Your task to perform on an android device: change alarm snooze length Image 0: 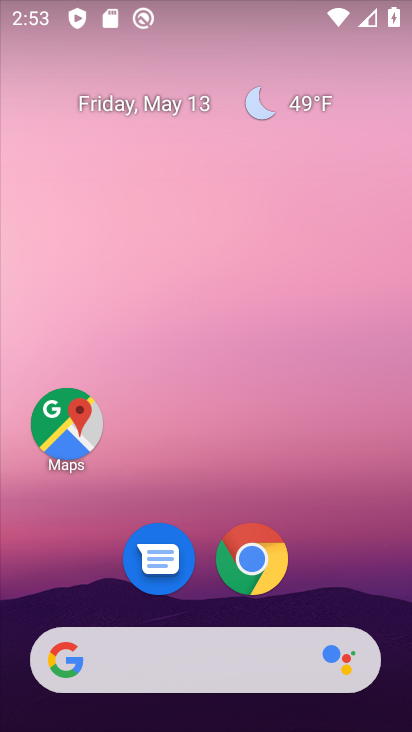
Step 0: drag from (365, 612) to (250, 31)
Your task to perform on an android device: change alarm snooze length Image 1: 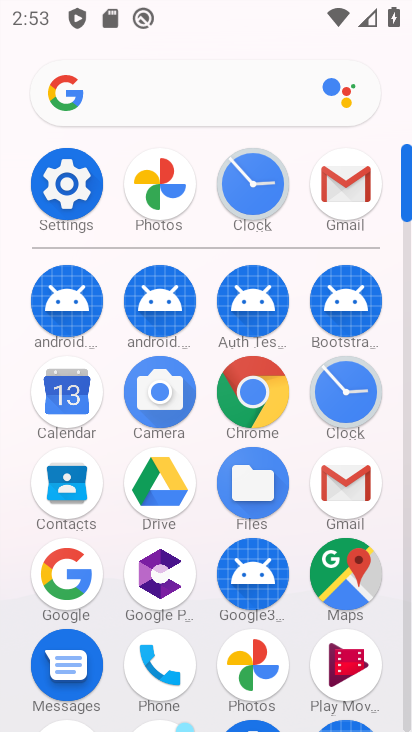
Step 1: click (346, 390)
Your task to perform on an android device: change alarm snooze length Image 2: 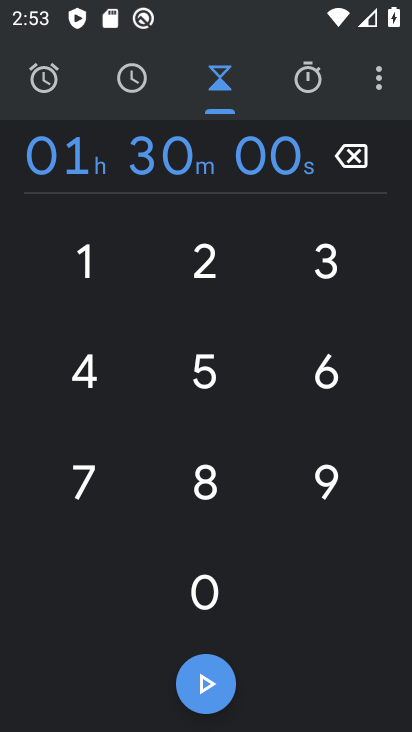
Step 2: click (378, 88)
Your task to perform on an android device: change alarm snooze length Image 3: 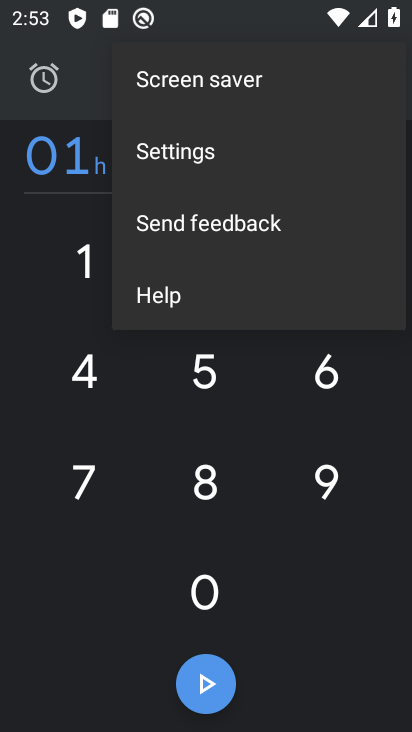
Step 3: click (202, 150)
Your task to perform on an android device: change alarm snooze length Image 4: 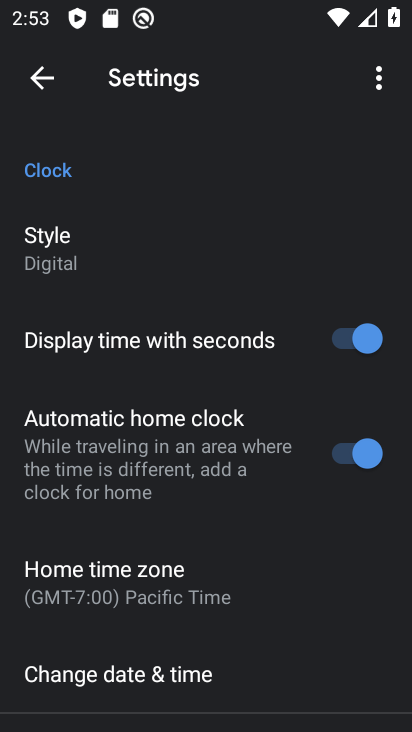
Step 4: drag from (177, 591) to (216, 89)
Your task to perform on an android device: change alarm snooze length Image 5: 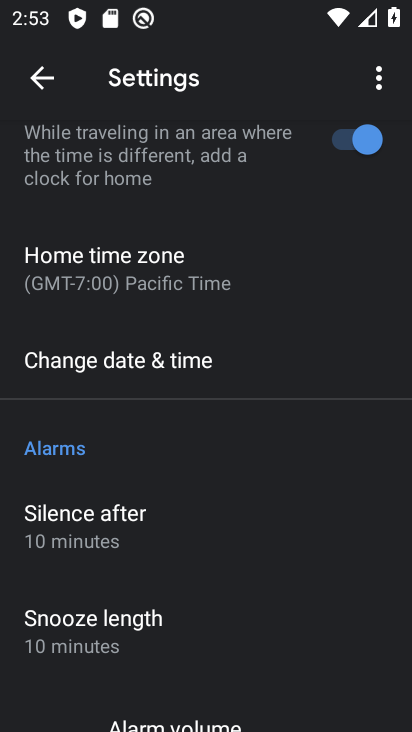
Step 5: click (38, 635)
Your task to perform on an android device: change alarm snooze length Image 6: 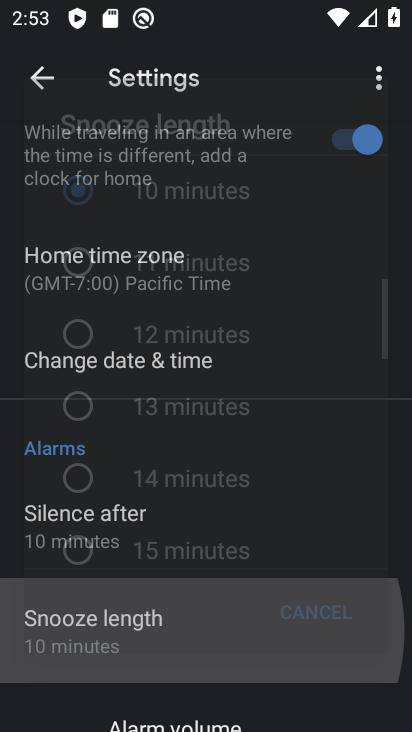
Step 6: click (38, 635)
Your task to perform on an android device: change alarm snooze length Image 7: 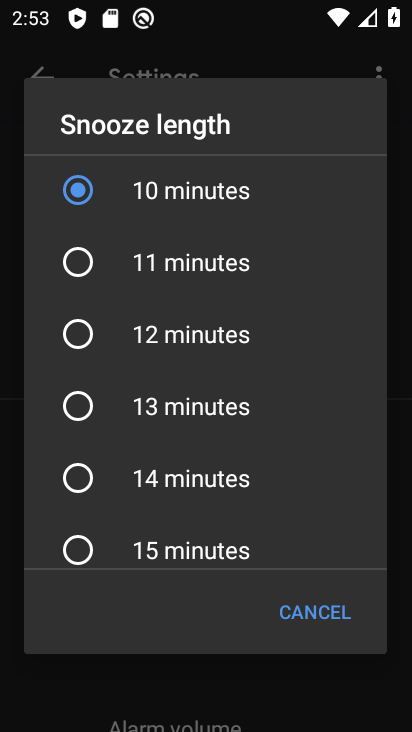
Step 7: click (83, 554)
Your task to perform on an android device: change alarm snooze length Image 8: 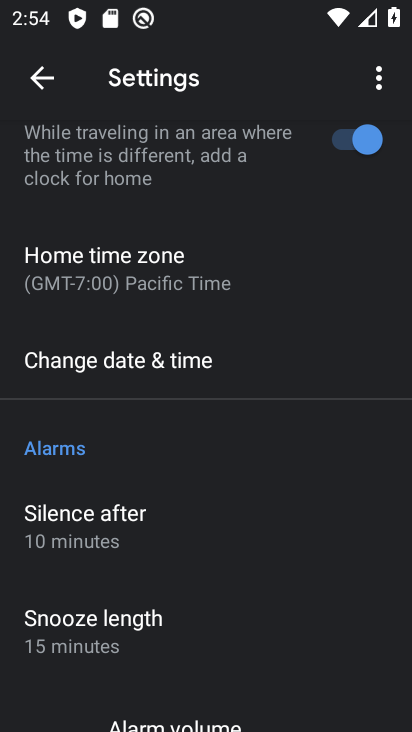
Step 8: task complete